Your task to perform on an android device: Open CNN.com Image 0: 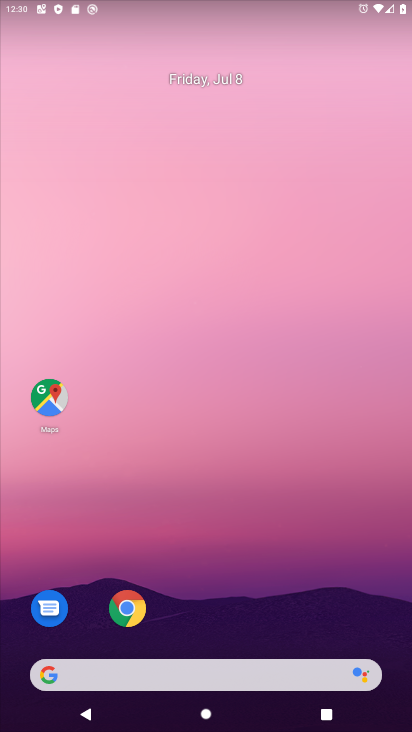
Step 0: click (114, 676)
Your task to perform on an android device: Open CNN.com Image 1: 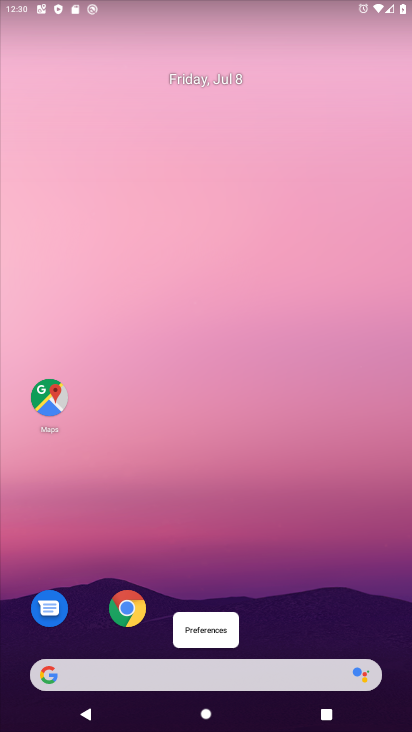
Step 1: click (138, 670)
Your task to perform on an android device: Open CNN.com Image 2: 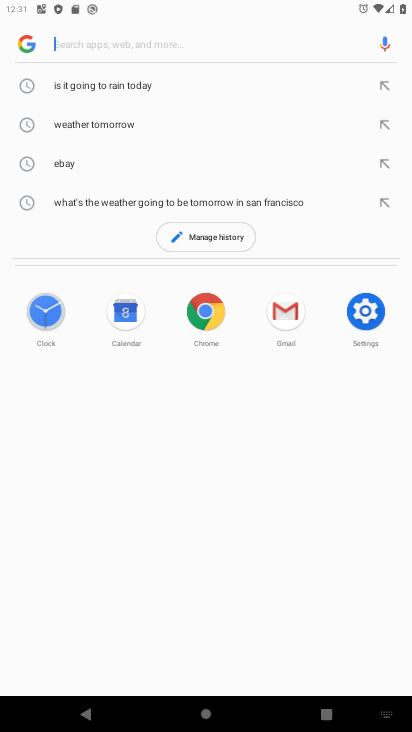
Step 2: type "CNN.com"
Your task to perform on an android device: Open CNN.com Image 3: 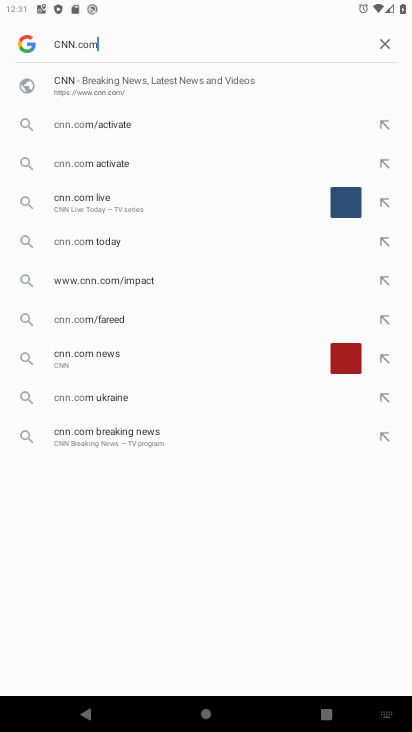
Step 3: type ""
Your task to perform on an android device: Open CNN.com Image 4: 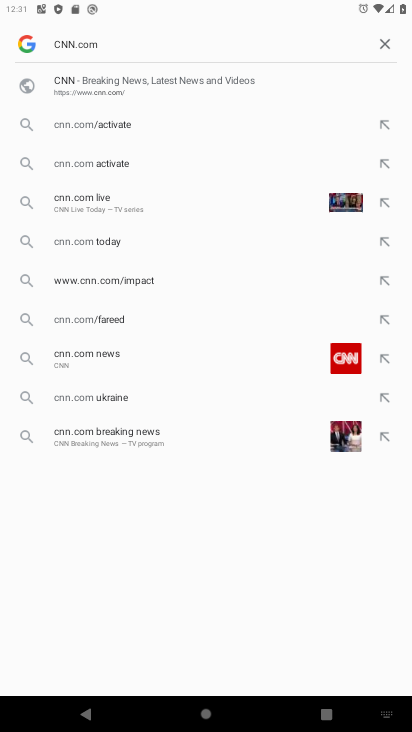
Step 4: click (85, 89)
Your task to perform on an android device: Open CNN.com Image 5: 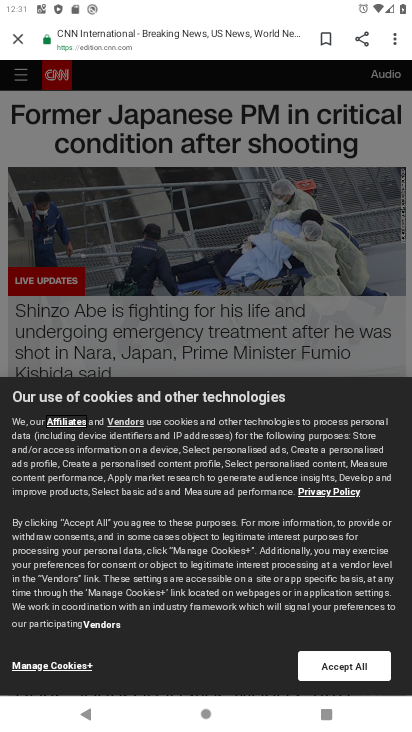
Step 5: task complete